Your task to perform on an android device: Open CNN.com Image 0: 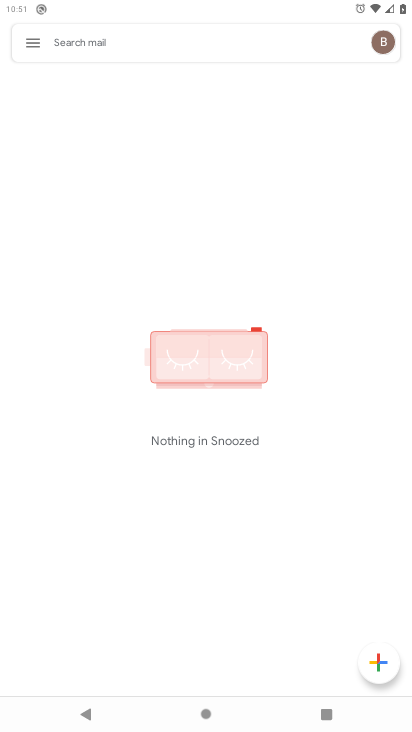
Step 0: press home button
Your task to perform on an android device: Open CNN.com Image 1: 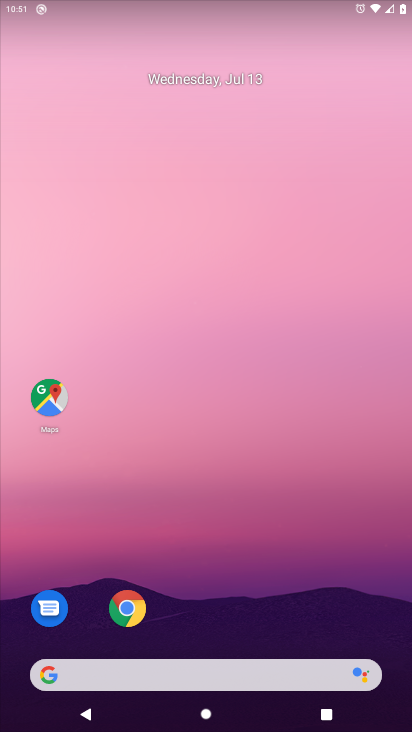
Step 1: click (149, 671)
Your task to perform on an android device: Open CNN.com Image 2: 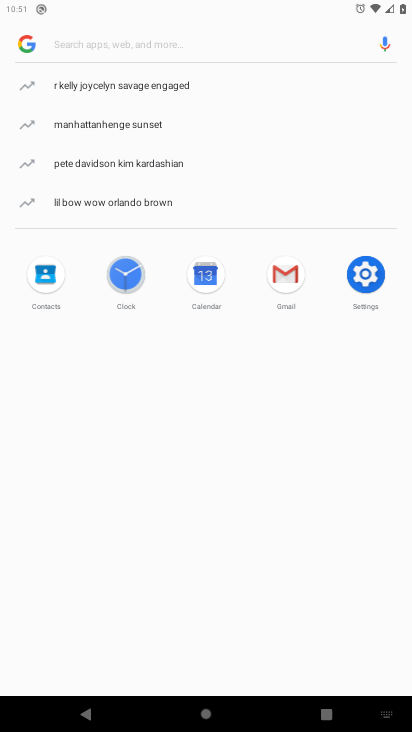
Step 2: type "CNN.com"
Your task to perform on an android device: Open CNN.com Image 3: 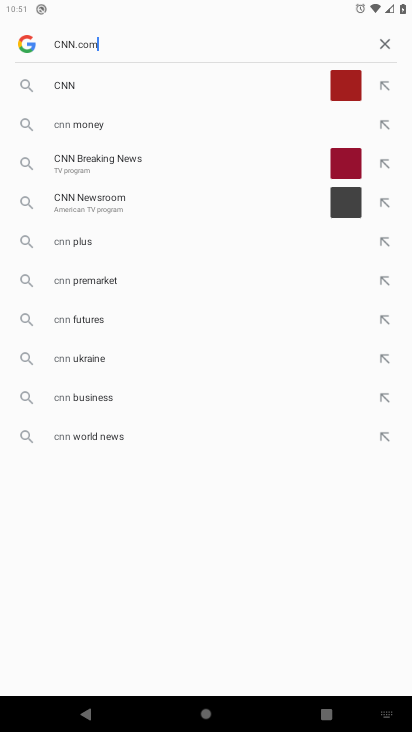
Step 3: type ""
Your task to perform on an android device: Open CNN.com Image 4: 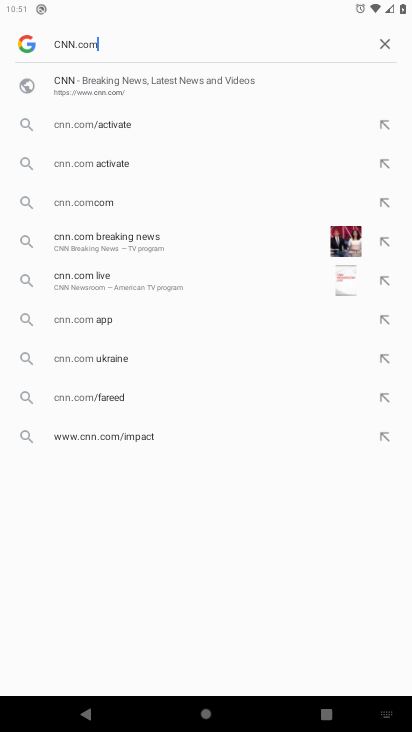
Step 4: click (82, 87)
Your task to perform on an android device: Open CNN.com Image 5: 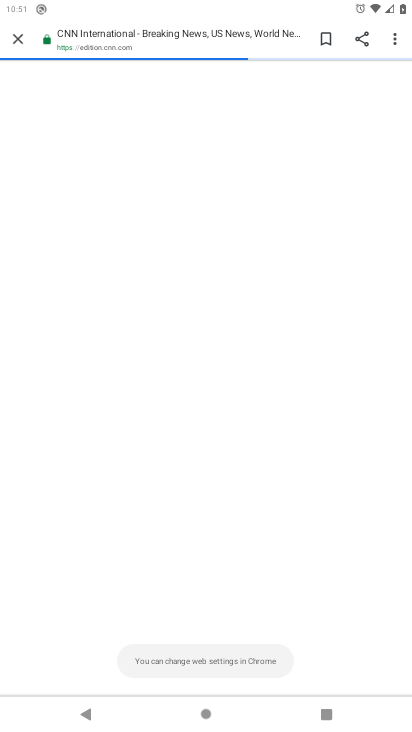
Step 5: task complete